Your task to perform on an android device: Search for flights from London to Paris Image 0: 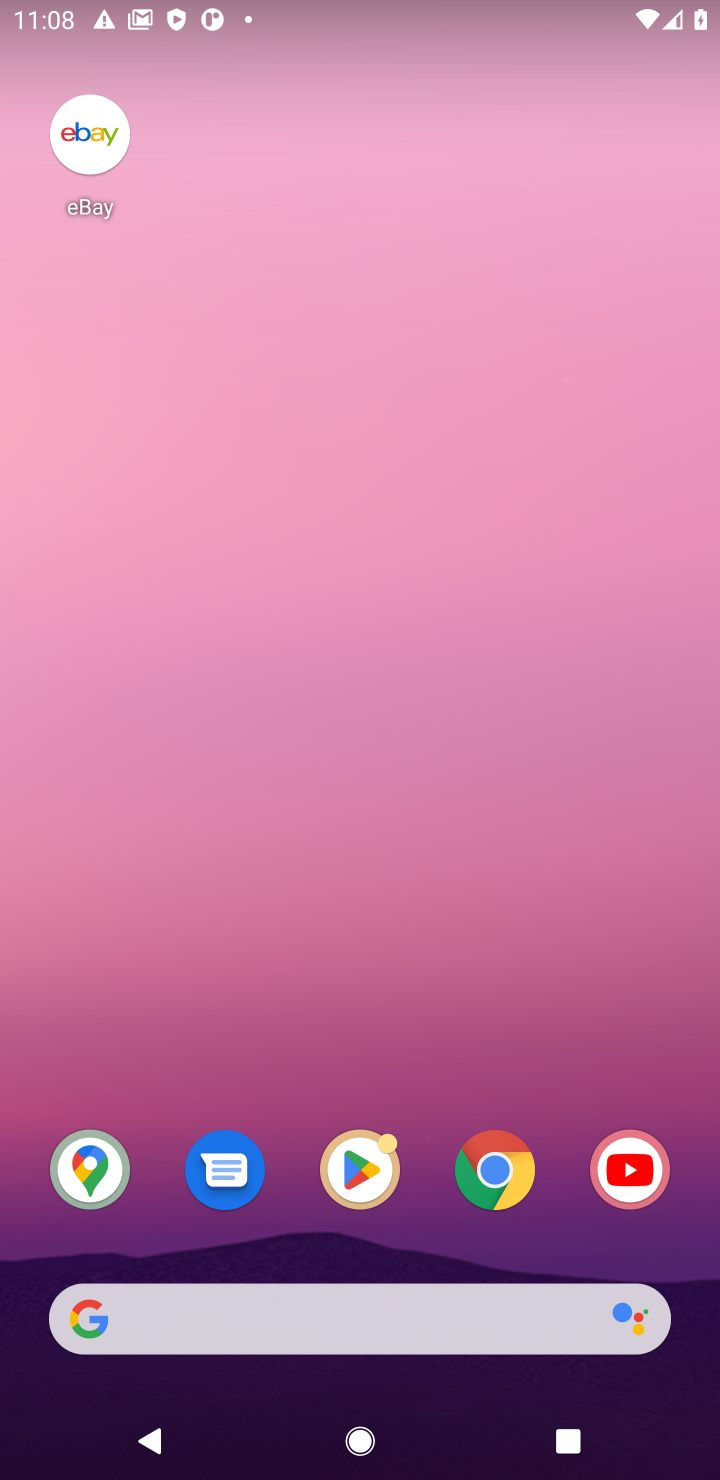
Step 0: drag from (468, 1250) to (562, 427)
Your task to perform on an android device: Search for flights from London to Paris Image 1: 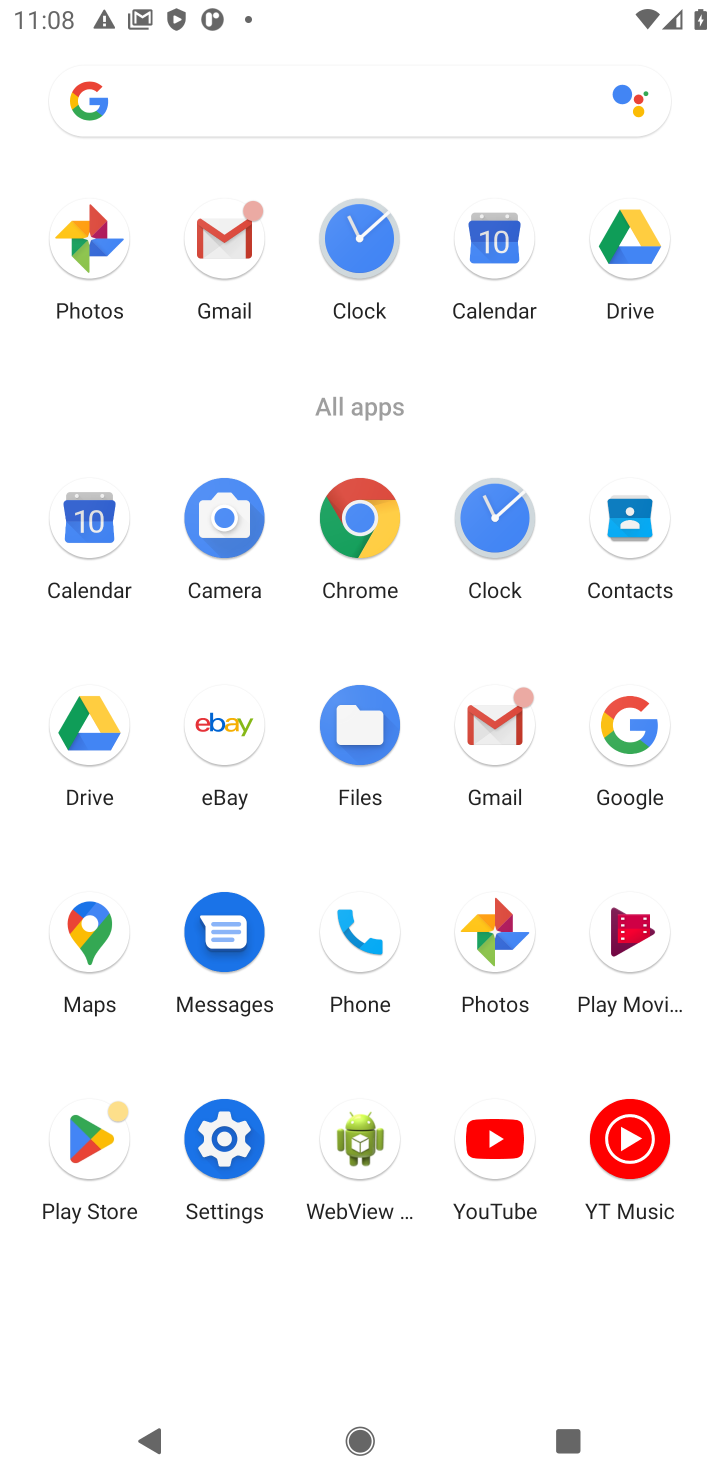
Step 1: click (644, 777)
Your task to perform on an android device: Search for flights from London to Paris Image 2: 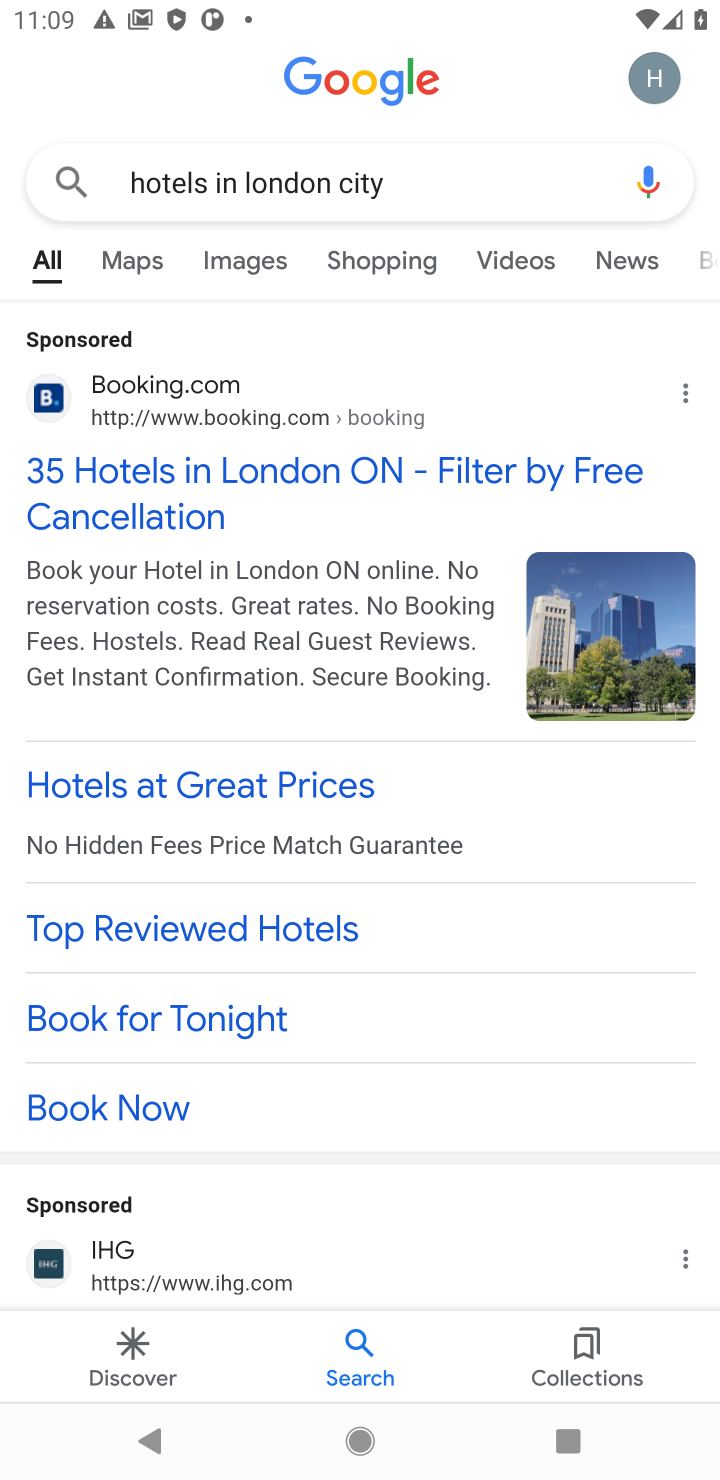
Step 2: click (523, 185)
Your task to perform on an android device: Search for flights from London to Paris Image 3: 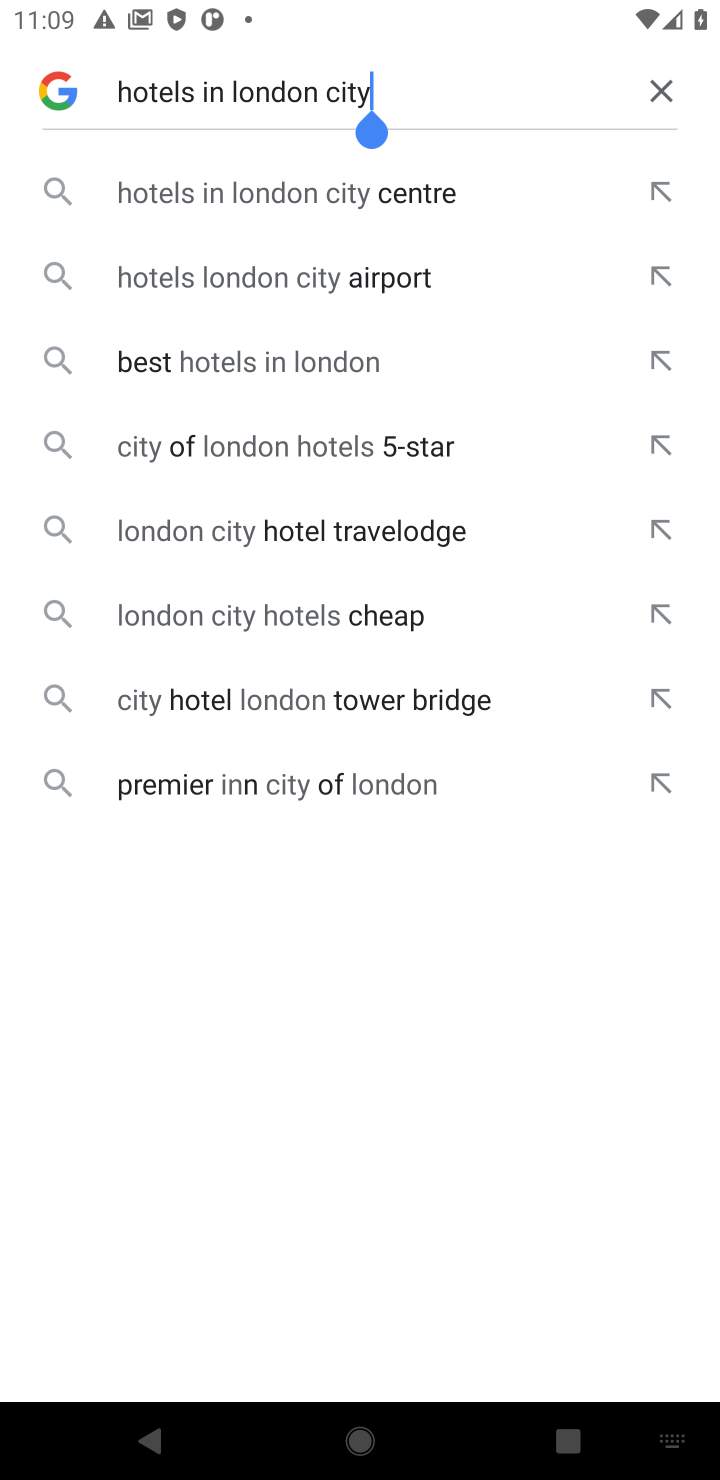
Step 3: click (657, 77)
Your task to perform on an android device: Search for flights from London to Paris Image 4: 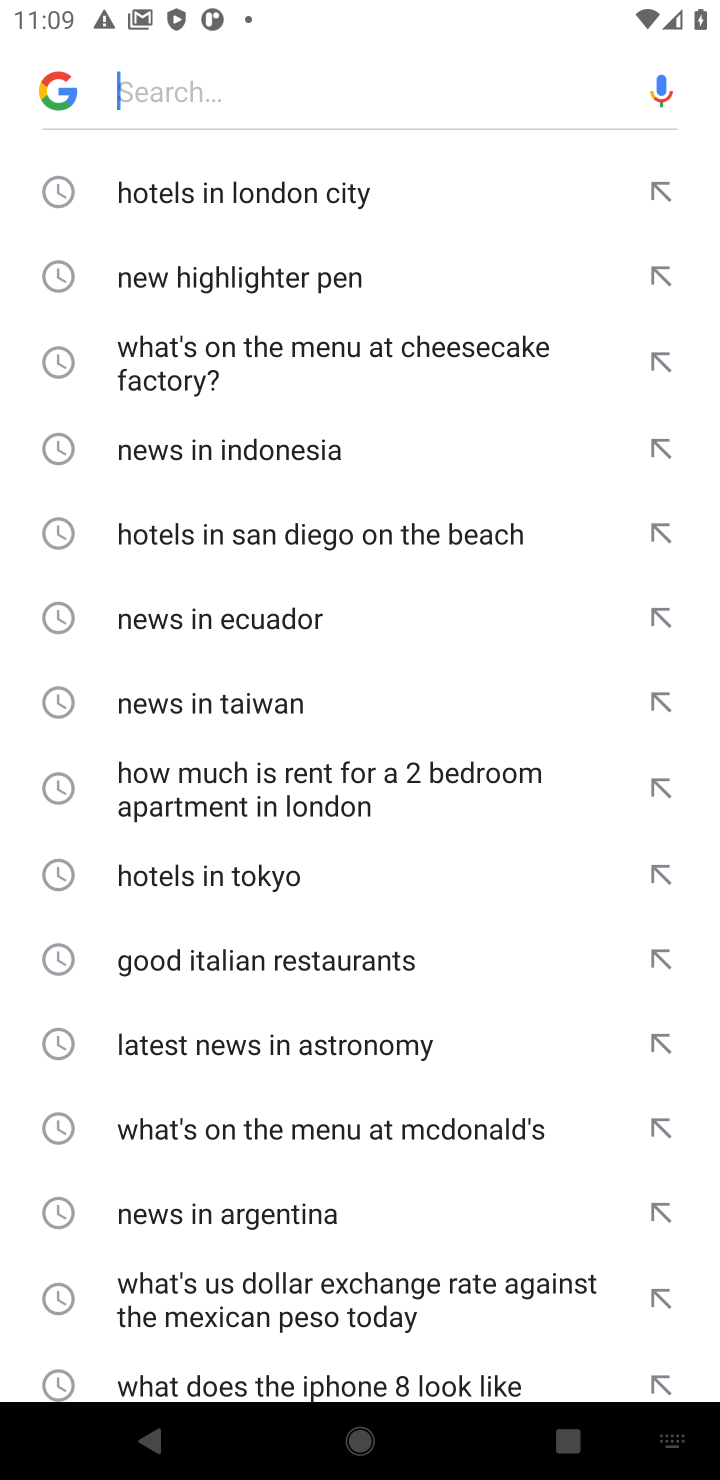
Step 4: type "flights from London to Paris"
Your task to perform on an android device: Search for flights from London to Paris Image 5: 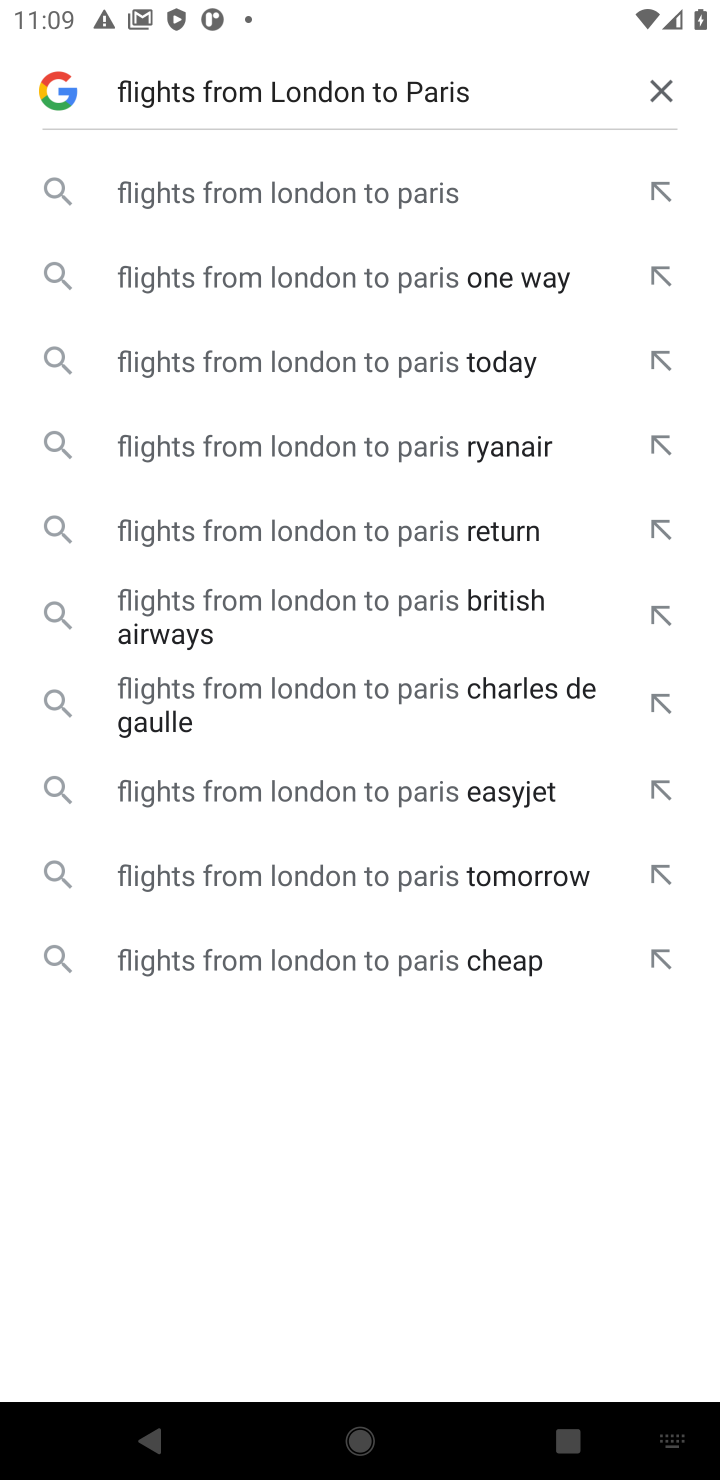
Step 5: click (523, 176)
Your task to perform on an android device: Search for flights from London to Paris Image 6: 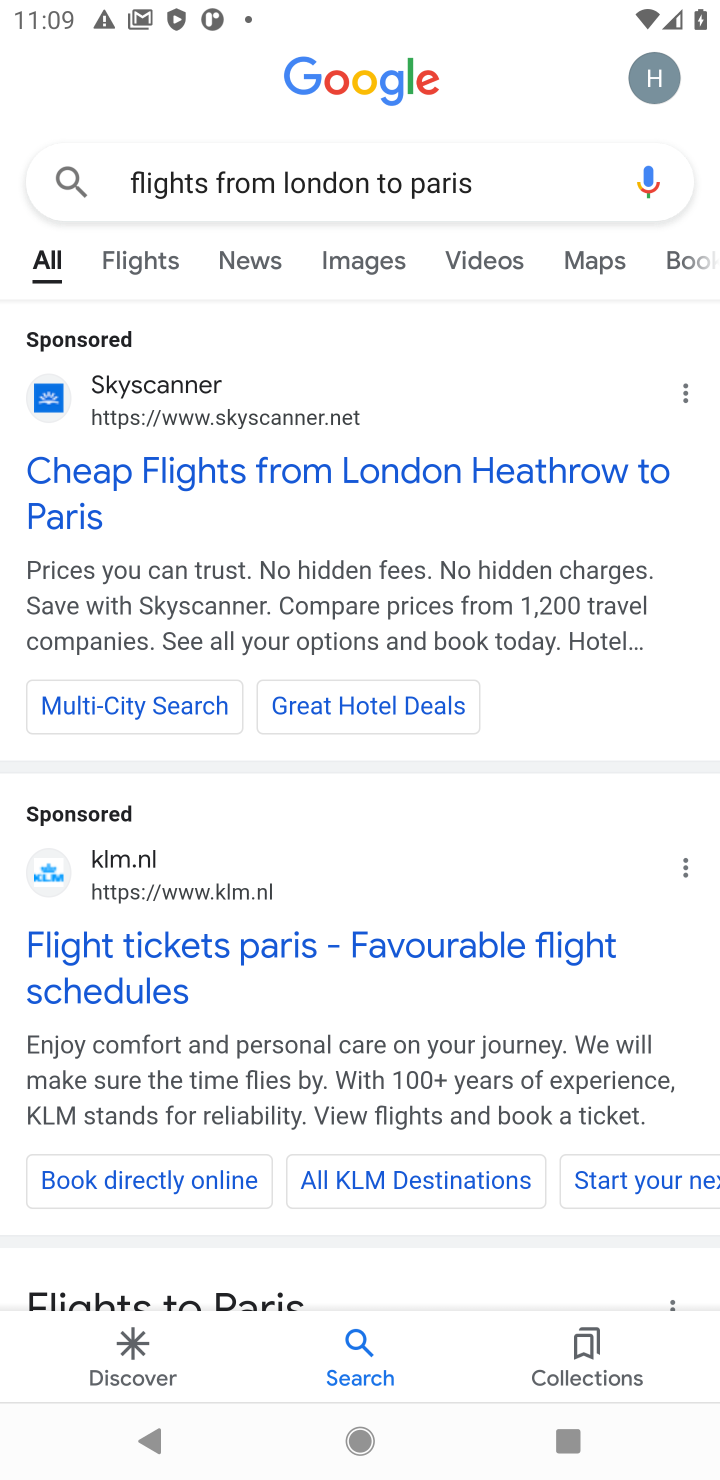
Step 6: click (128, 248)
Your task to perform on an android device: Search for flights from London to Paris Image 7: 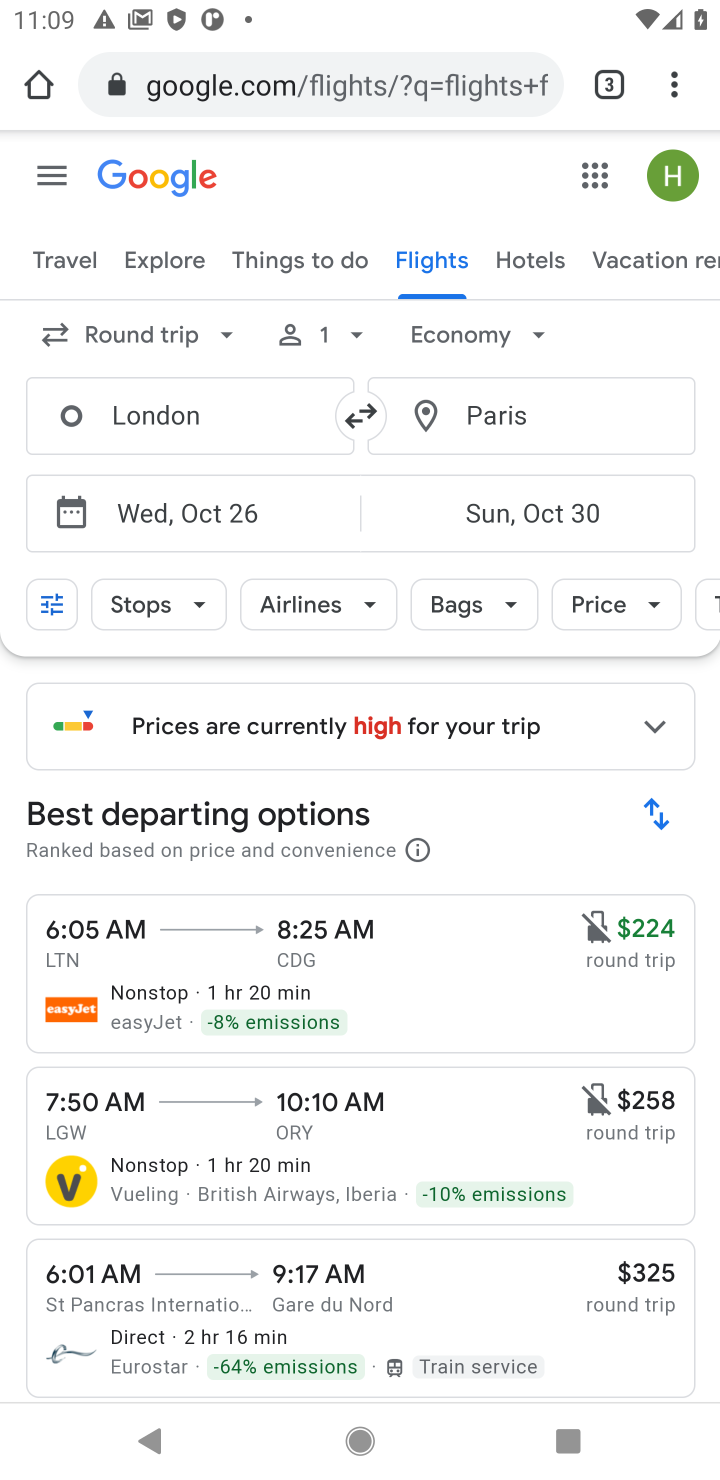
Step 7: task complete